Your task to perform on an android device: turn off data saver in the chrome app Image 0: 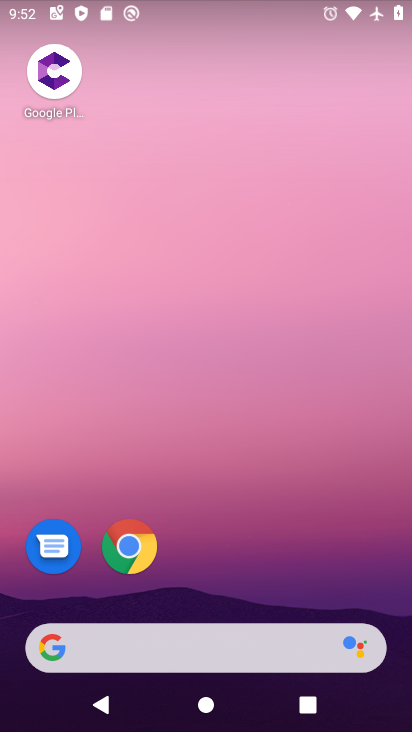
Step 0: click (130, 545)
Your task to perform on an android device: turn off data saver in the chrome app Image 1: 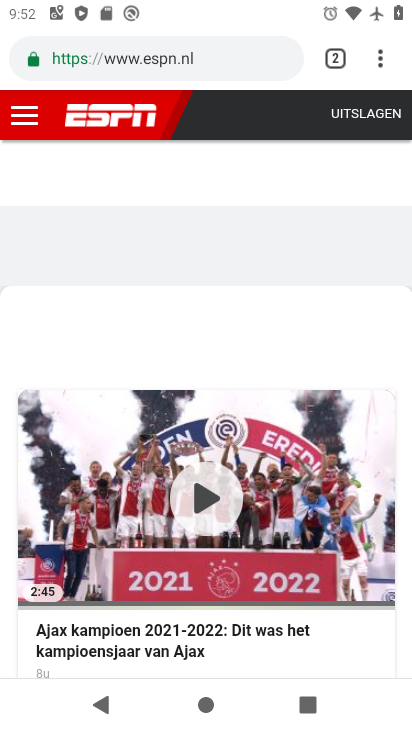
Step 1: click (378, 64)
Your task to perform on an android device: turn off data saver in the chrome app Image 2: 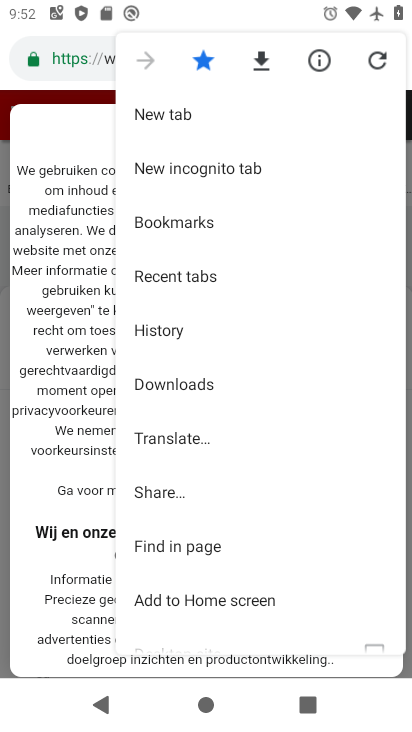
Step 2: drag from (288, 584) to (285, 130)
Your task to perform on an android device: turn off data saver in the chrome app Image 3: 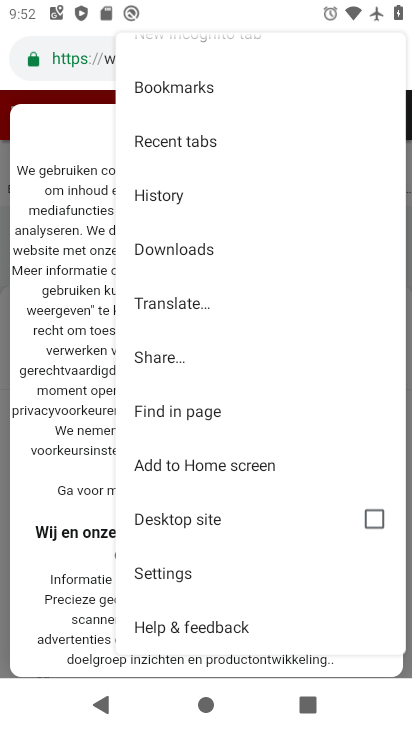
Step 3: click (152, 578)
Your task to perform on an android device: turn off data saver in the chrome app Image 4: 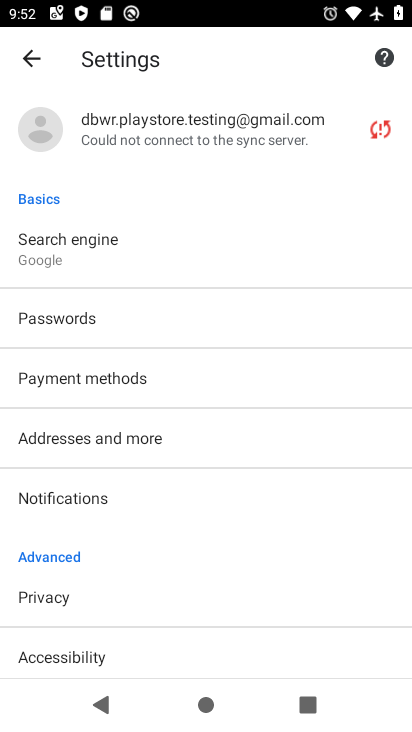
Step 4: drag from (160, 638) to (228, 178)
Your task to perform on an android device: turn off data saver in the chrome app Image 5: 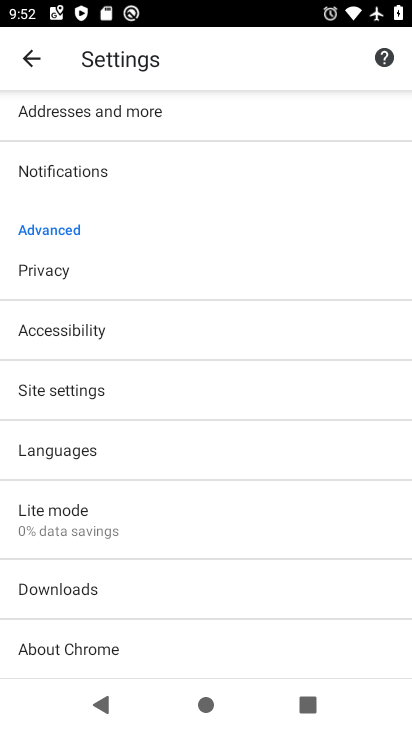
Step 5: click (38, 508)
Your task to perform on an android device: turn off data saver in the chrome app Image 6: 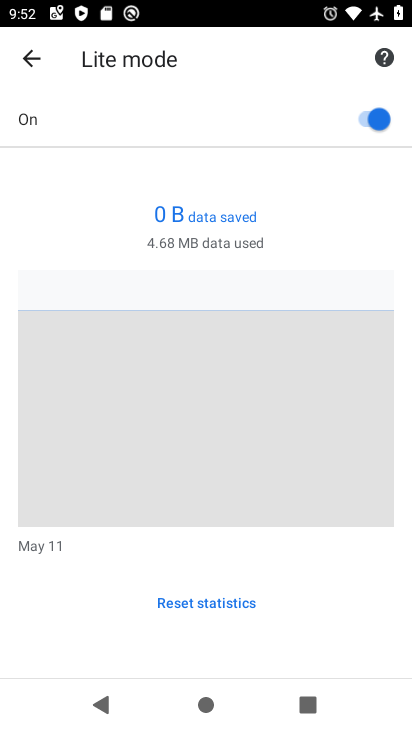
Step 6: click (360, 113)
Your task to perform on an android device: turn off data saver in the chrome app Image 7: 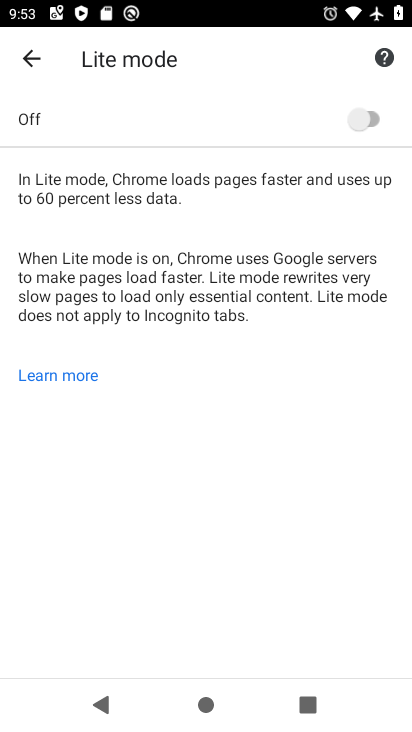
Step 7: task complete